Your task to perform on an android device: See recent photos Image 0: 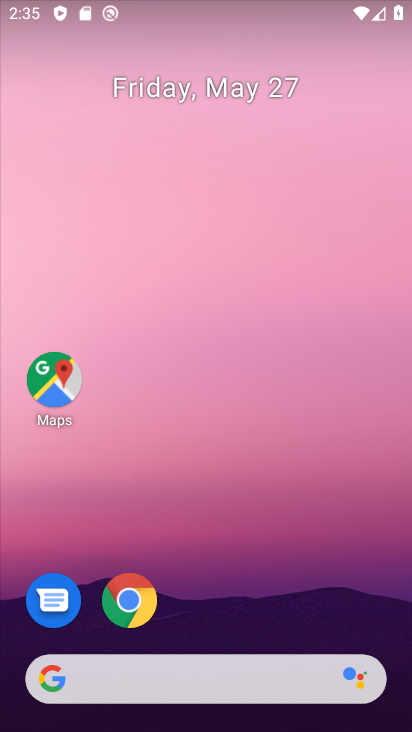
Step 0: drag from (353, 568) to (367, 1)
Your task to perform on an android device: See recent photos Image 1: 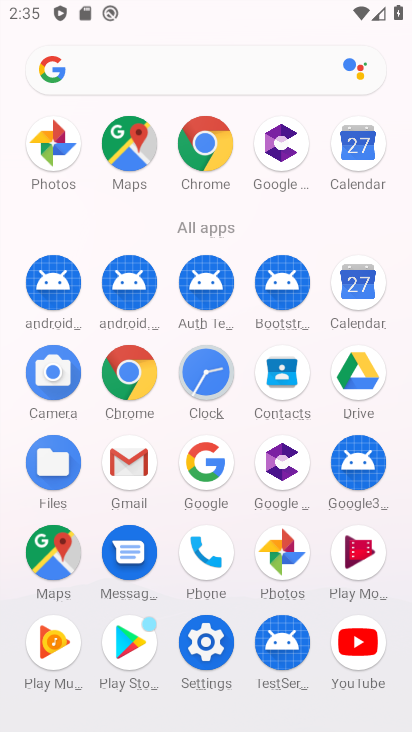
Step 1: click (51, 153)
Your task to perform on an android device: See recent photos Image 2: 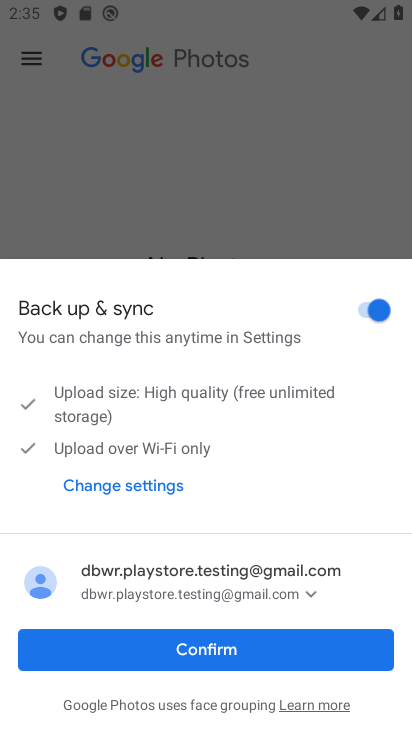
Step 2: click (196, 661)
Your task to perform on an android device: See recent photos Image 3: 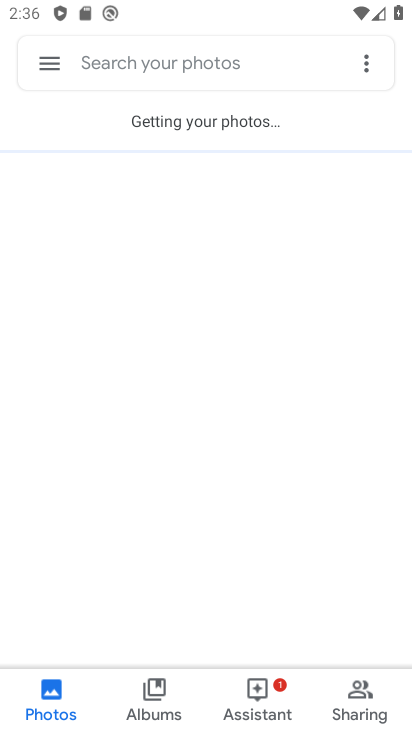
Step 3: task complete